Your task to perform on an android device: Open the map Image 0: 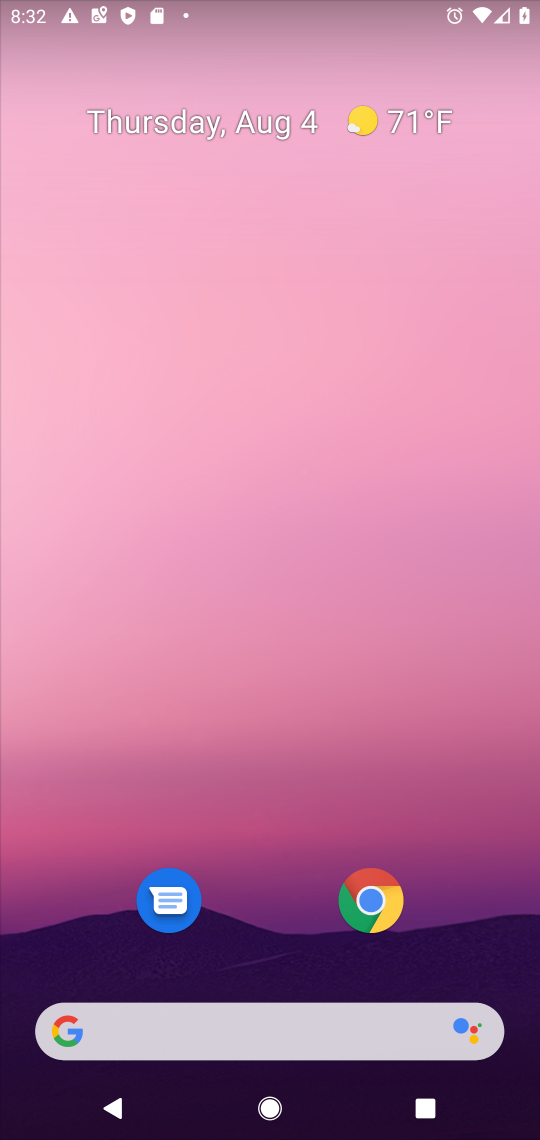
Step 0: drag from (233, 1034) to (331, 136)
Your task to perform on an android device: Open the map Image 1: 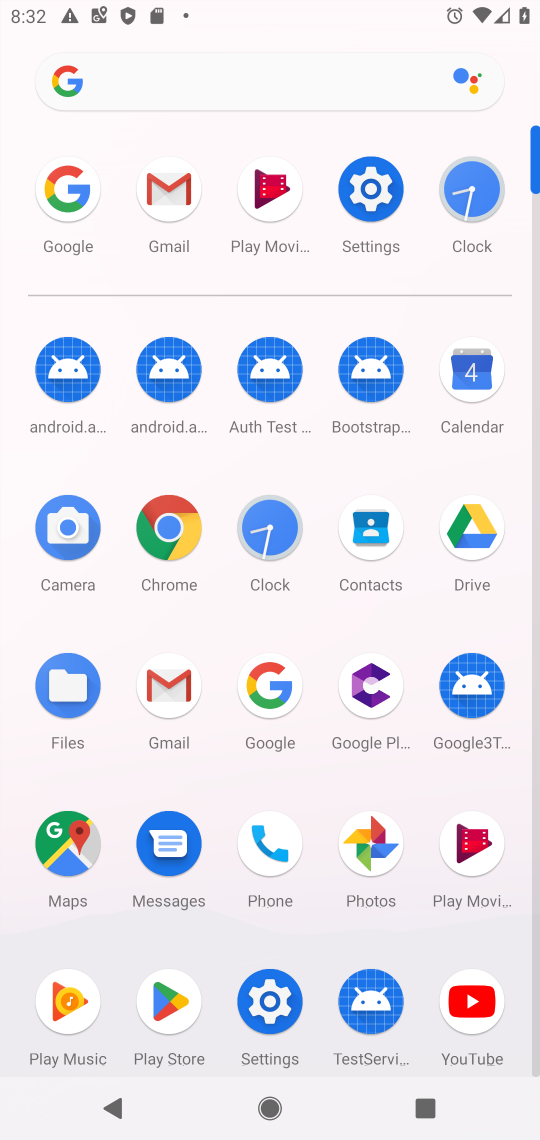
Step 1: click (69, 845)
Your task to perform on an android device: Open the map Image 2: 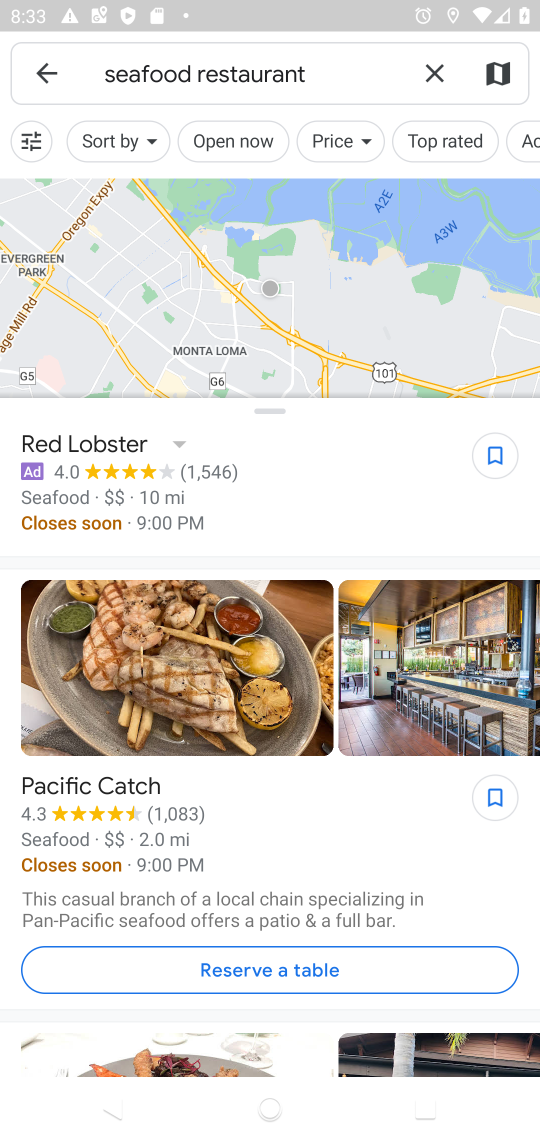
Step 2: click (435, 76)
Your task to perform on an android device: Open the map Image 3: 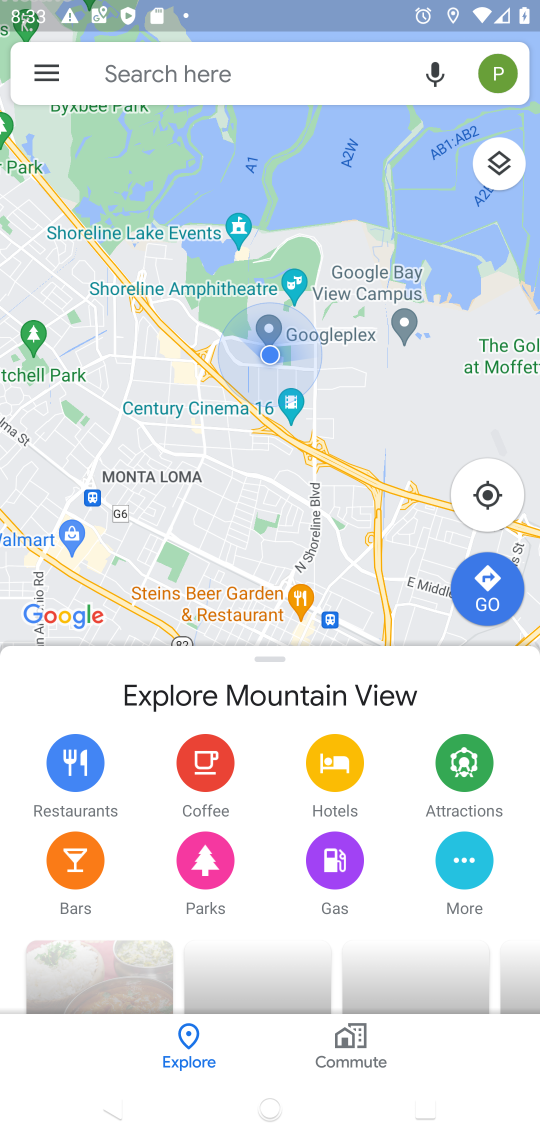
Step 3: task complete